Your task to perform on an android device: set the timer Image 0: 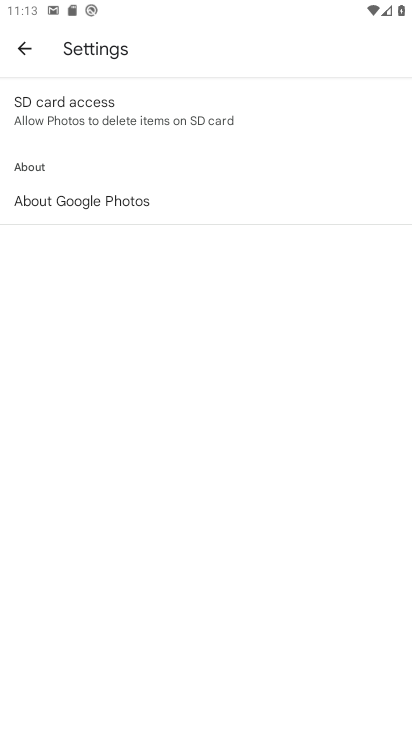
Step 0: press home button
Your task to perform on an android device: set the timer Image 1: 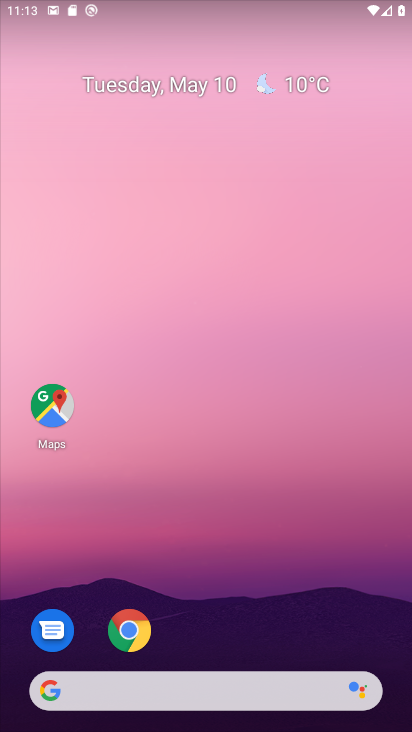
Step 1: drag from (297, 593) to (291, 51)
Your task to perform on an android device: set the timer Image 2: 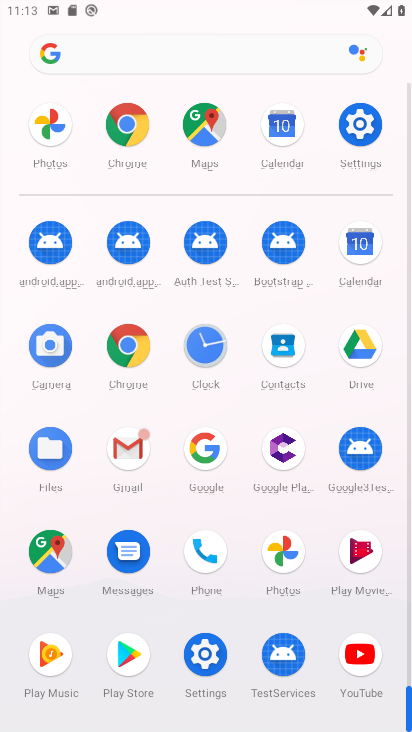
Step 2: click (209, 347)
Your task to perform on an android device: set the timer Image 3: 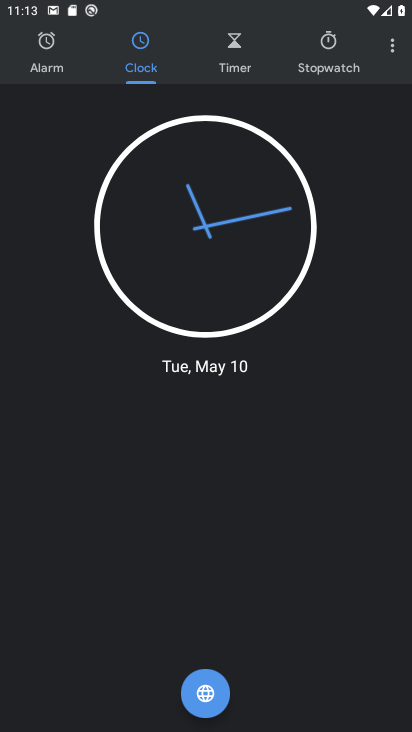
Step 3: click (233, 43)
Your task to perform on an android device: set the timer Image 4: 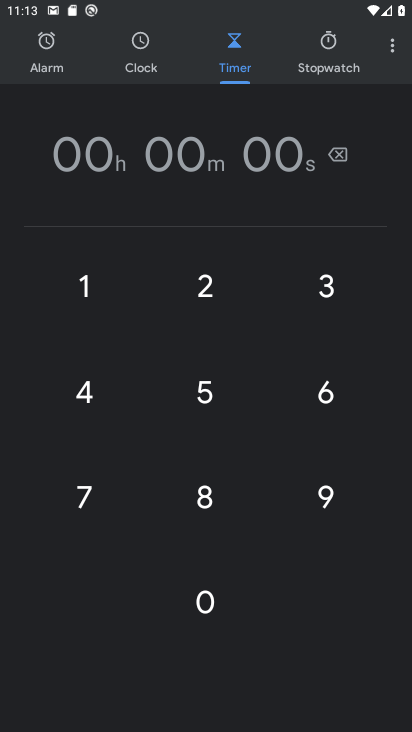
Step 4: click (95, 281)
Your task to perform on an android device: set the timer Image 5: 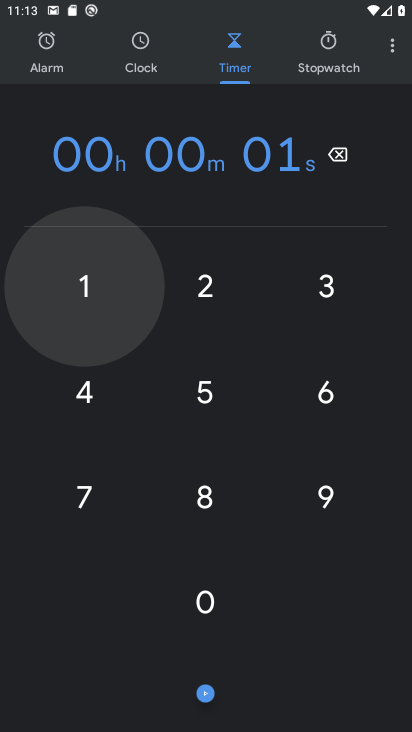
Step 5: click (203, 291)
Your task to perform on an android device: set the timer Image 6: 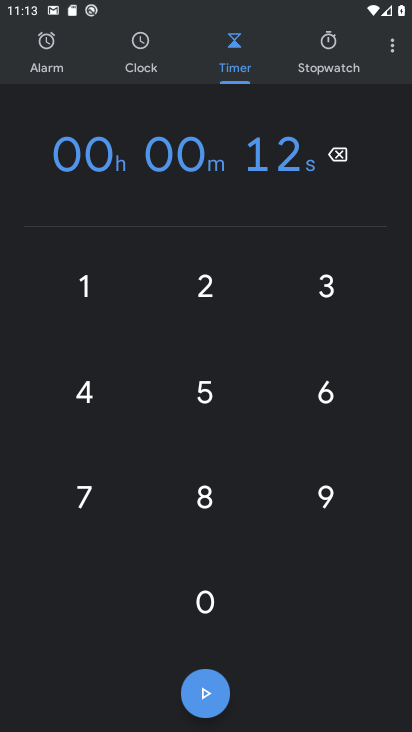
Step 6: click (344, 294)
Your task to perform on an android device: set the timer Image 7: 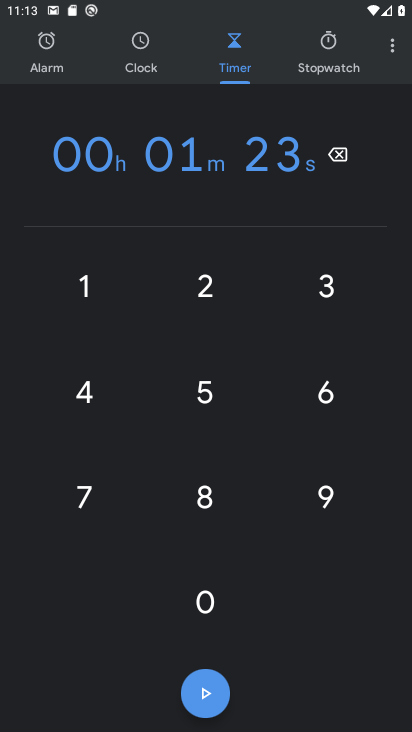
Step 7: click (115, 398)
Your task to perform on an android device: set the timer Image 8: 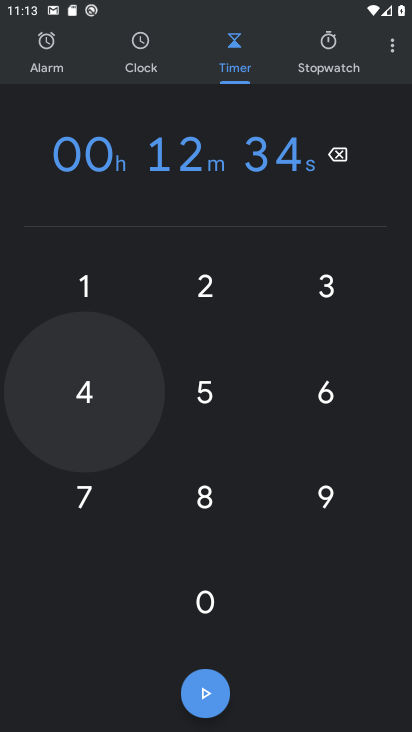
Step 8: click (208, 385)
Your task to perform on an android device: set the timer Image 9: 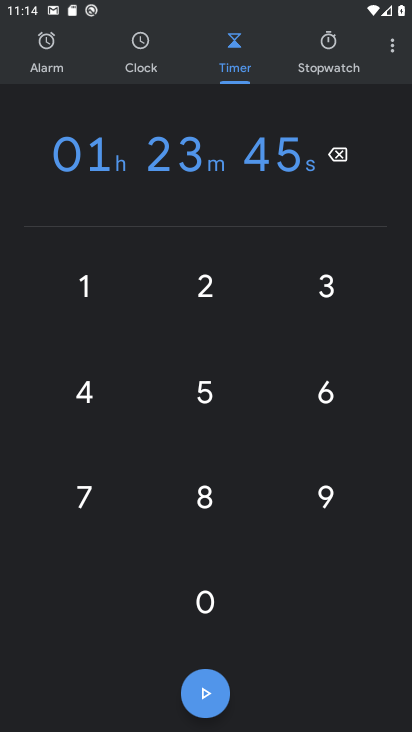
Step 9: click (219, 685)
Your task to perform on an android device: set the timer Image 10: 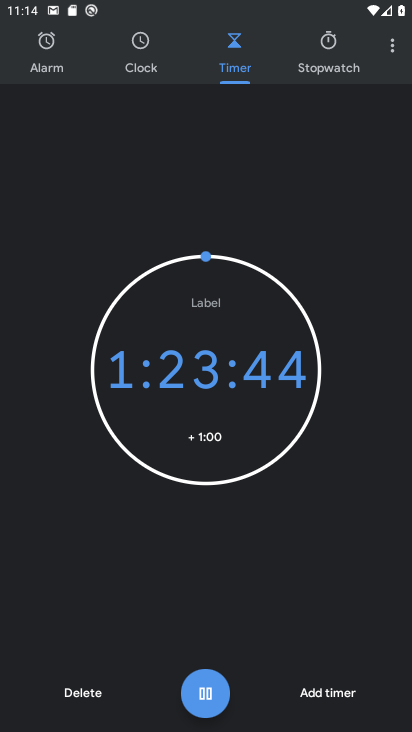
Step 10: task complete